Your task to perform on an android device: open chrome and create a bookmark for the current page Image 0: 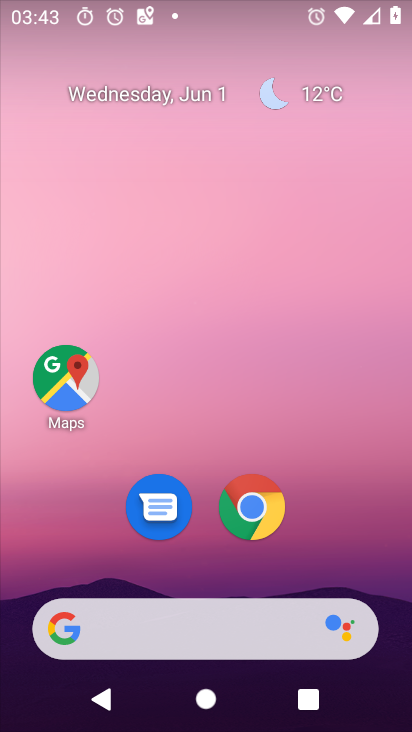
Step 0: click (248, 513)
Your task to perform on an android device: open chrome and create a bookmark for the current page Image 1: 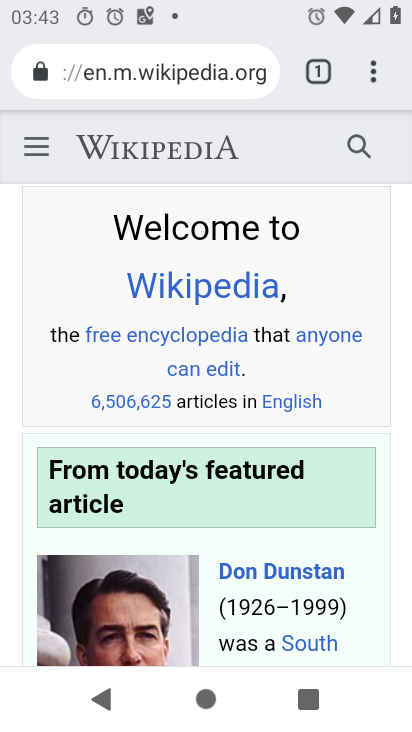
Step 1: click (375, 74)
Your task to perform on an android device: open chrome and create a bookmark for the current page Image 2: 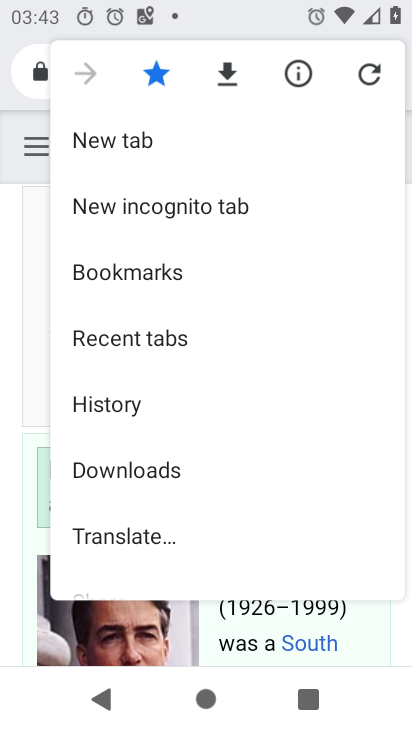
Step 2: task complete